Your task to perform on an android device: Go to accessibility settings Image 0: 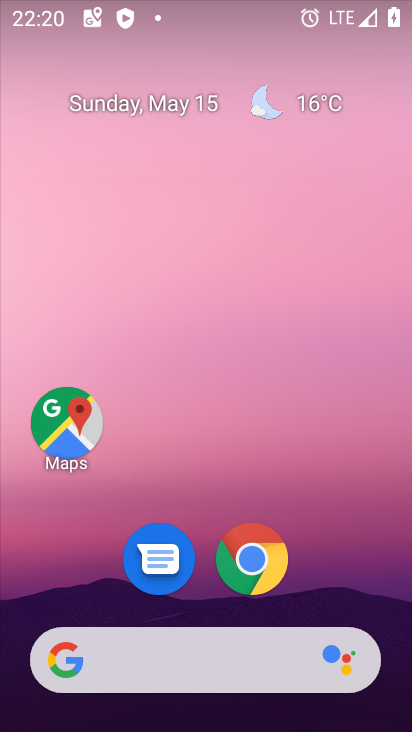
Step 0: drag from (216, 453) to (148, 5)
Your task to perform on an android device: Go to accessibility settings Image 1: 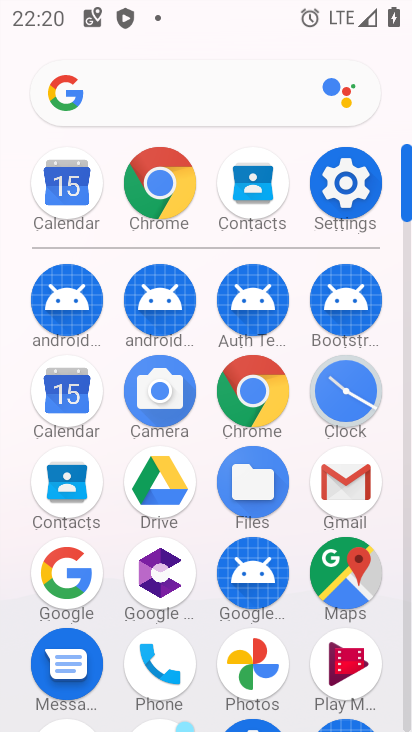
Step 1: click (318, 196)
Your task to perform on an android device: Go to accessibility settings Image 2: 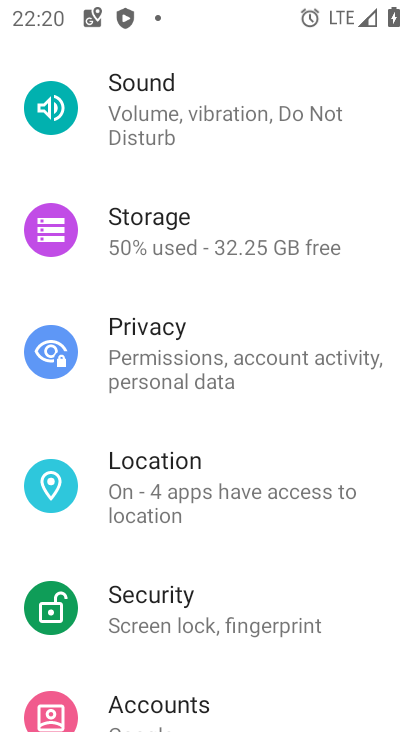
Step 2: drag from (225, 571) to (221, 272)
Your task to perform on an android device: Go to accessibility settings Image 3: 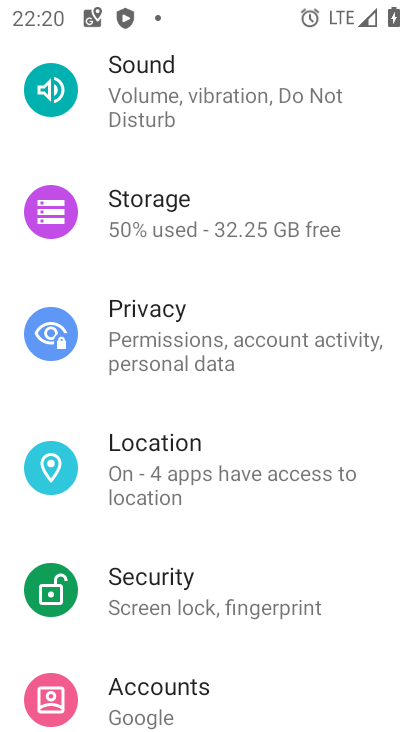
Step 3: drag from (278, 534) to (253, 89)
Your task to perform on an android device: Go to accessibility settings Image 4: 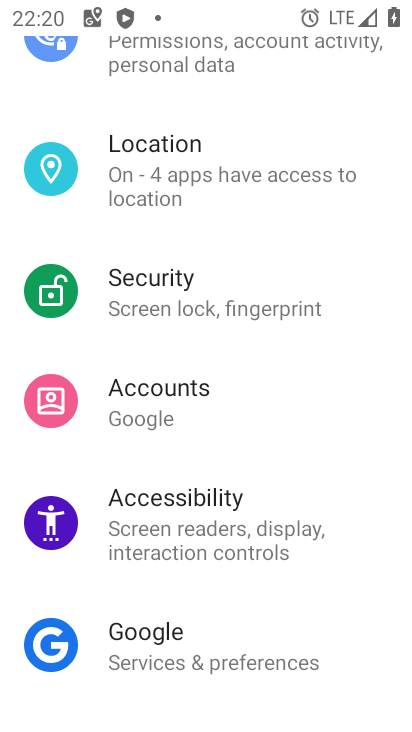
Step 4: click (175, 501)
Your task to perform on an android device: Go to accessibility settings Image 5: 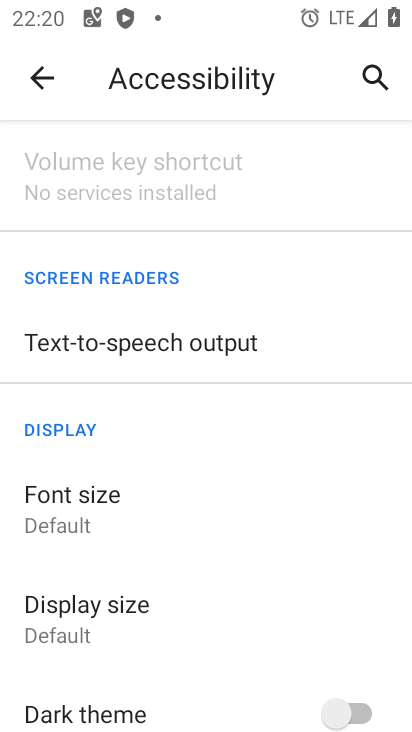
Step 5: task complete